Your task to perform on an android device: turn on the 12-hour format for clock Image 0: 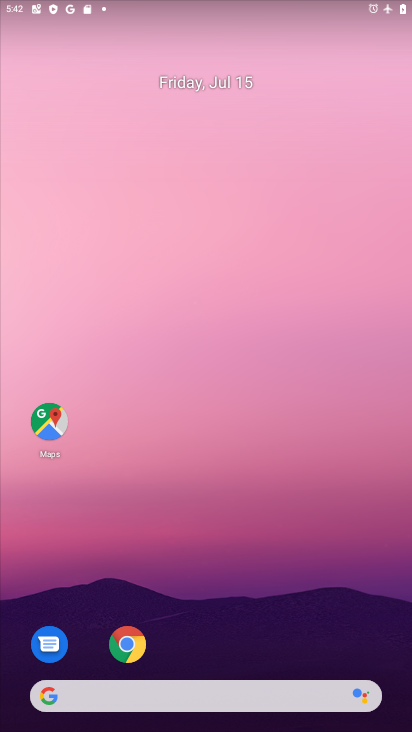
Step 0: drag from (187, 646) to (157, 297)
Your task to perform on an android device: turn on the 12-hour format for clock Image 1: 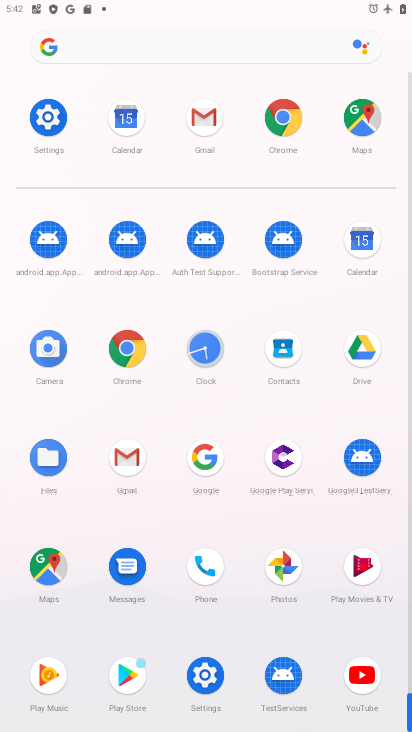
Step 1: click (200, 355)
Your task to perform on an android device: turn on the 12-hour format for clock Image 2: 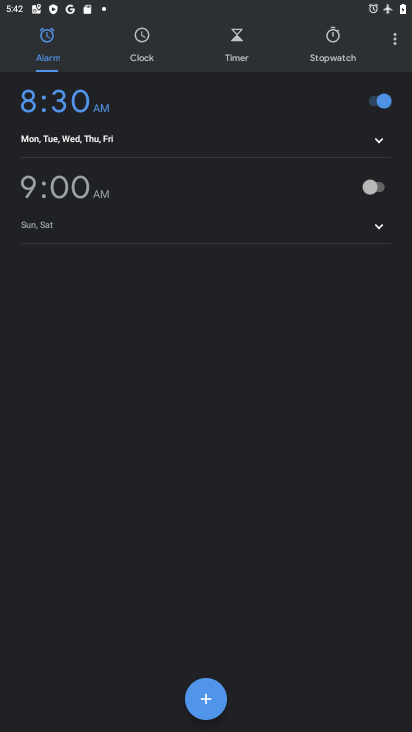
Step 2: click (390, 41)
Your task to perform on an android device: turn on the 12-hour format for clock Image 3: 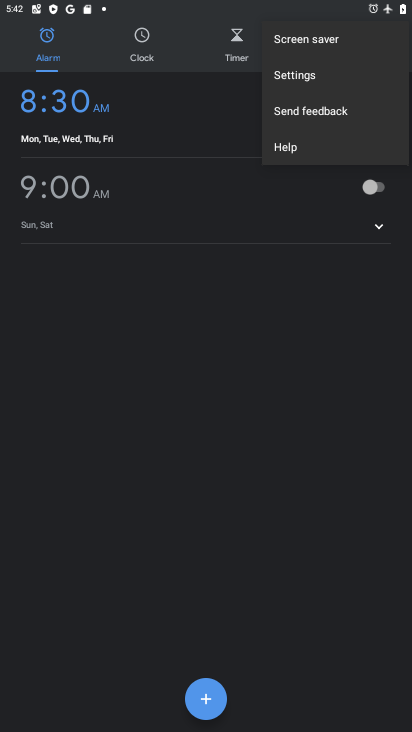
Step 3: click (307, 79)
Your task to perform on an android device: turn on the 12-hour format for clock Image 4: 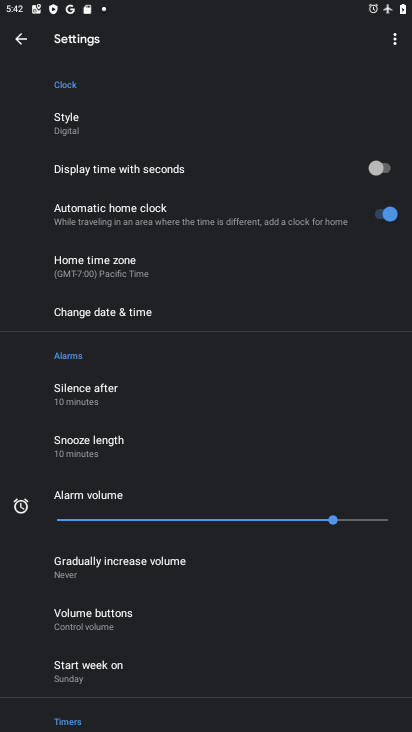
Step 4: drag from (307, 671) to (306, 417)
Your task to perform on an android device: turn on the 12-hour format for clock Image 5: 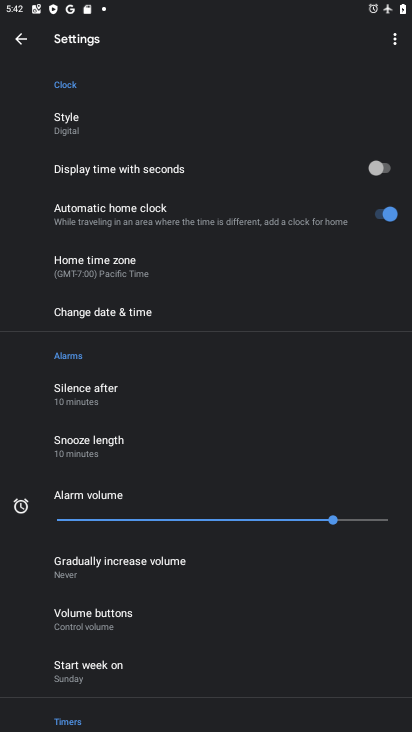
Step 5: drag from (301, 654) to (252, 358)
Your task to perform on an android device: turn on the 12-hour format for clock Image 6: 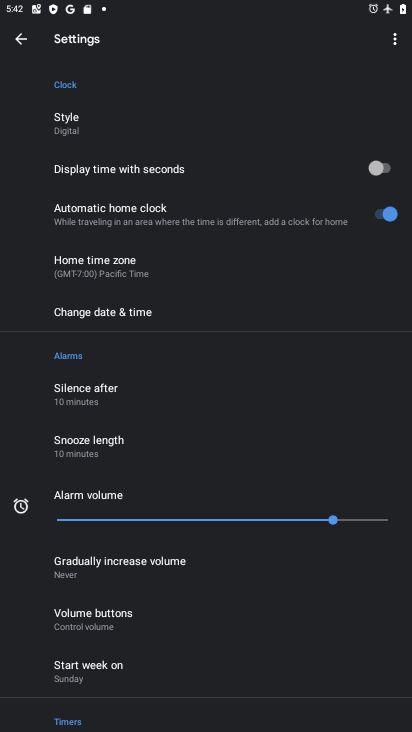
Step 6: click (81, 313)
Your task to perform on an android device: turn on the 12-hour format for clock Image 7: 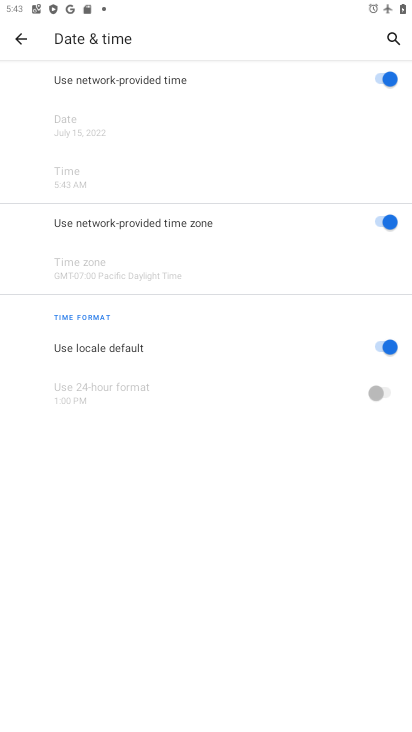
Step 7: task complete